Your task to perform on an android device: Open Chrome and go to settings Image 0: 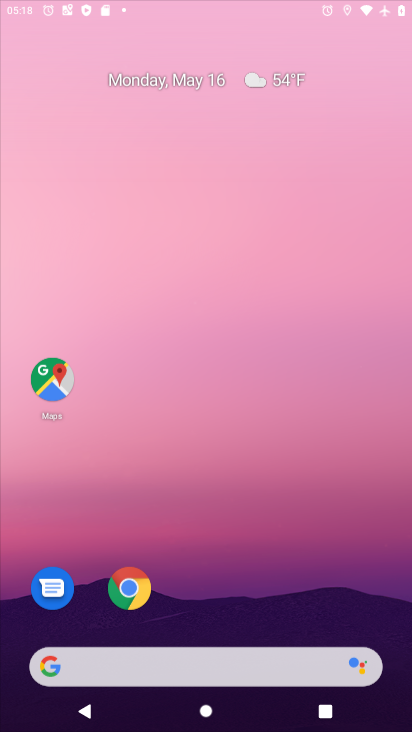
Step 0: drag from (239, 580) to (240, 196)
Your task to perform on an android device: Open Chrome and go to settings Image 1: 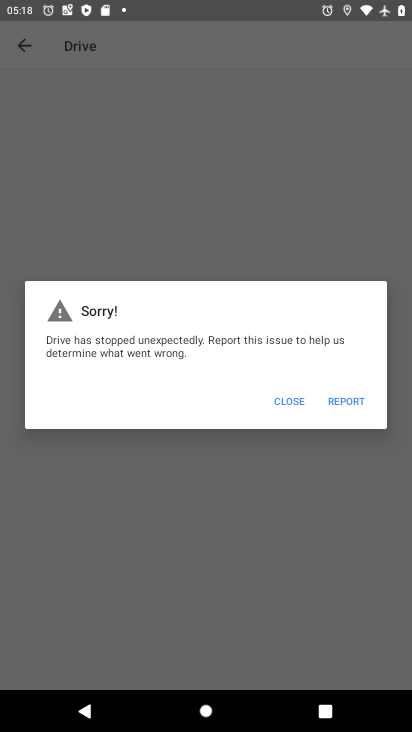
Step 1: press back button
Your task to perform on an android device: Open Chrome and go to settings Image 2: 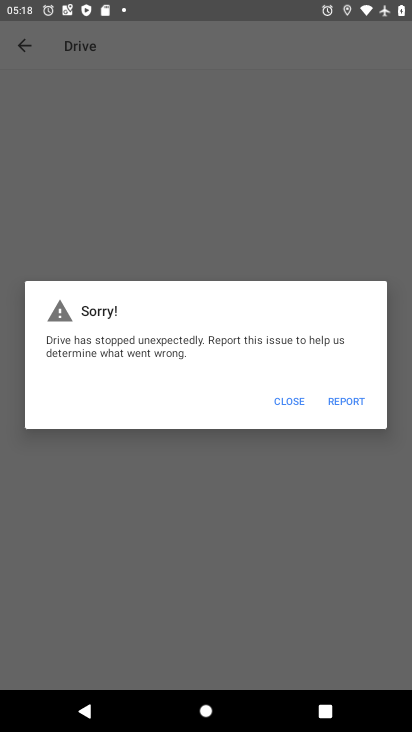
Step 2: press back button
Your task to perform on an android device: Open Chrome and go to settings Image 3: 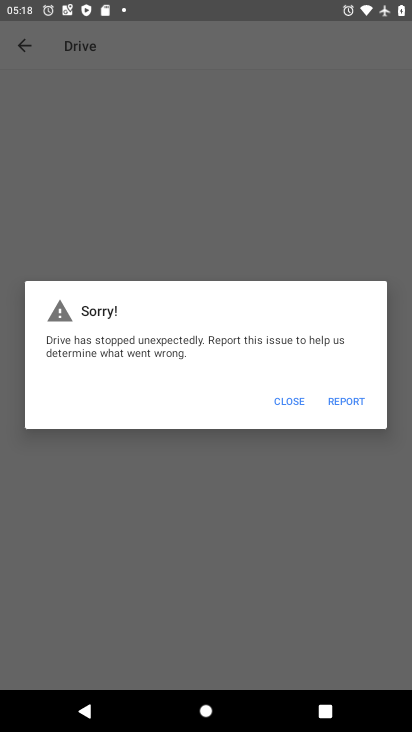
Step 3: press home button
Your task to perform on an android device: Open Chrome and go to settings Image 4: 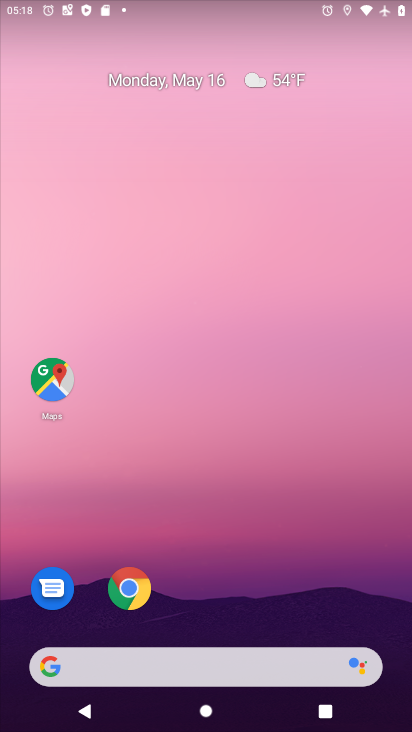
Step 4: drag from (233, 535) to (216, 26)
Your task to perform on an android device: Open Chrome and go to settings Image 5: 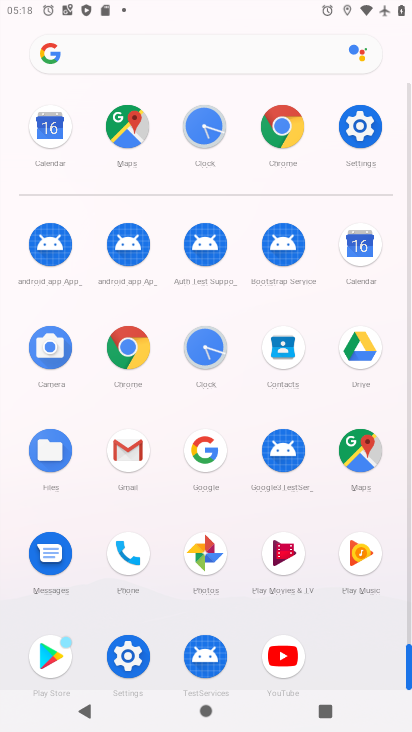
Step 5: drag from (4, 505) to (1, 194)
Your task to perform on an android device: Open Chrome and go to settings Image 6: 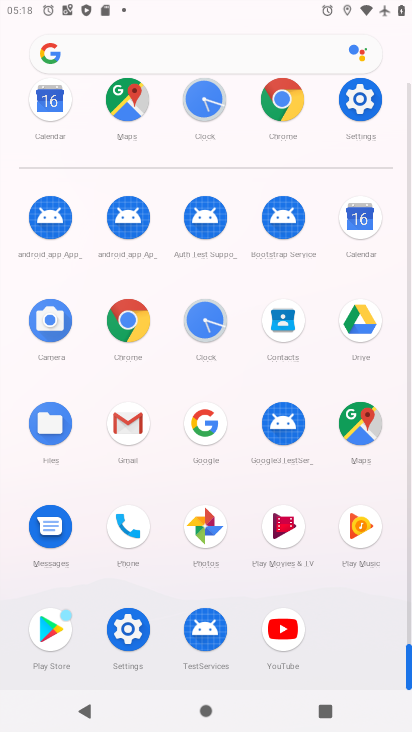
Step 6: click (129, 318)
Your task to perform on an android device: Open Chrome and go to settings Image 7: 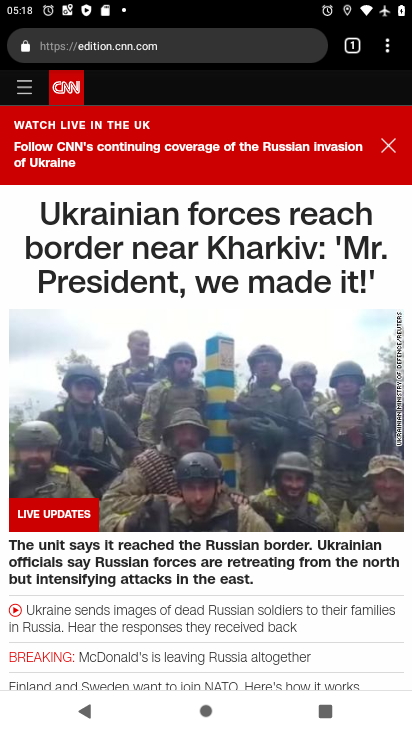
Step 7: task complete